Your task to perform on an android device: Clear the cart on ebay.com. Search for logitech g502 on ebay.com, select the first entry, and add it to the cart. Image 0: 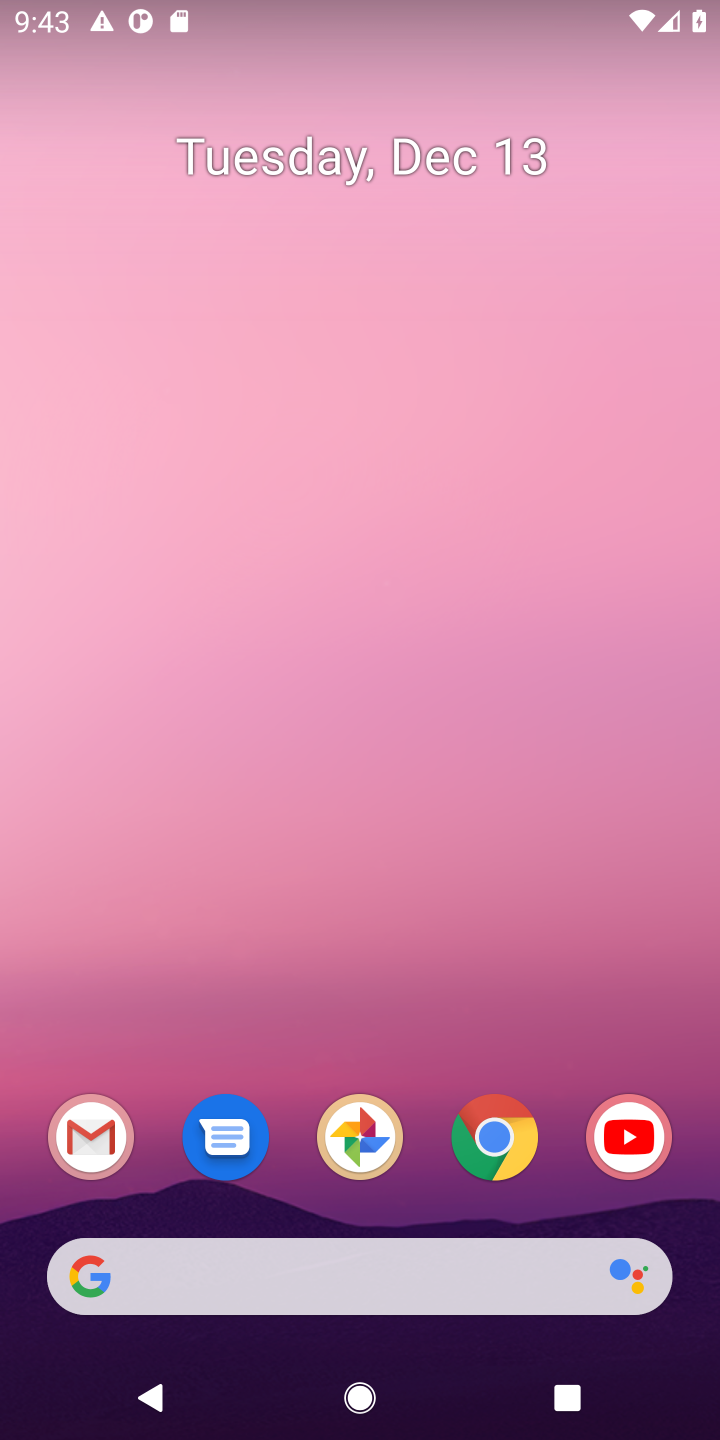
Step 0: click (495, 1142)
Your task to perform on an android device: Clear the cart on ebay.com. Search for logitech g502 on ebay.com, select the first entry, and add it to the cart. Image 1: 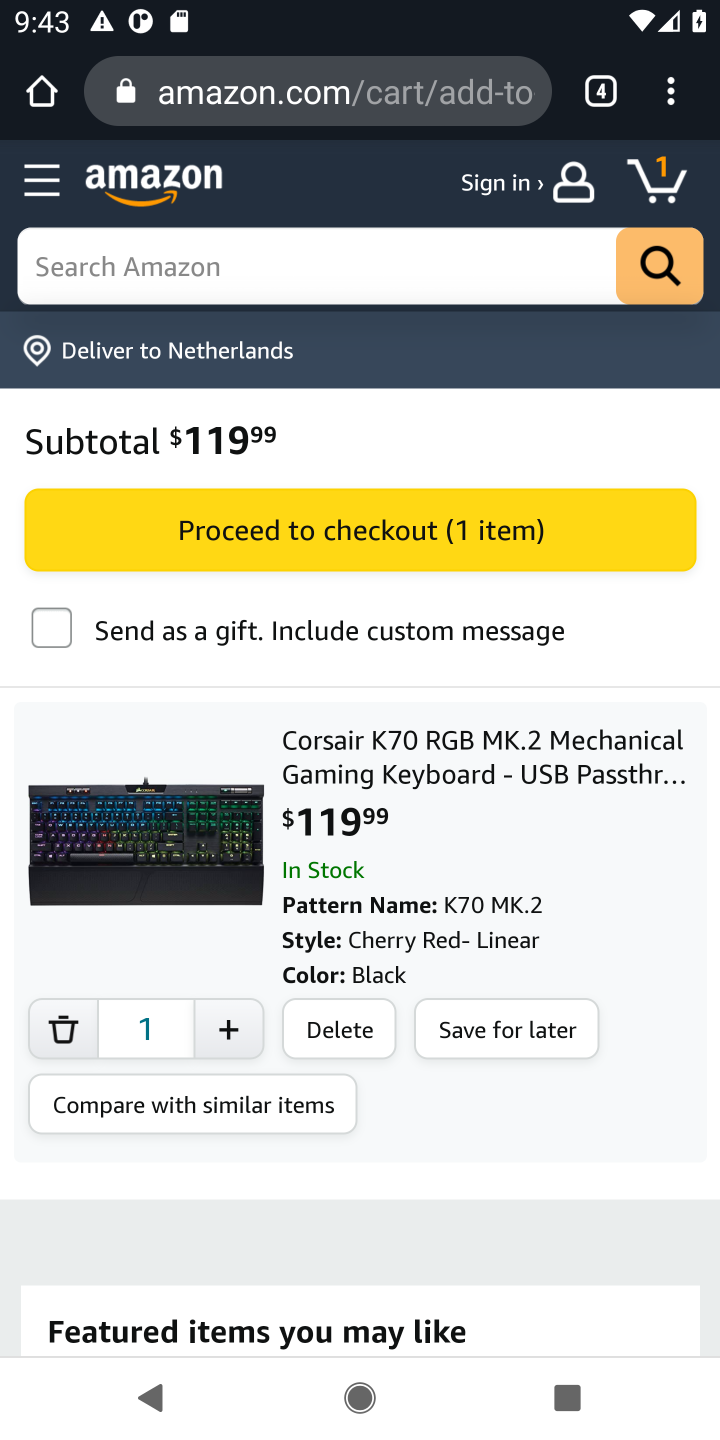
Step 1: click (602, 93)
Your task to perform on an android device: Clear the cart on ebay.com. Search for logitech g502 on ebay.com, select the first entry, and add it to the cart. Image 2: 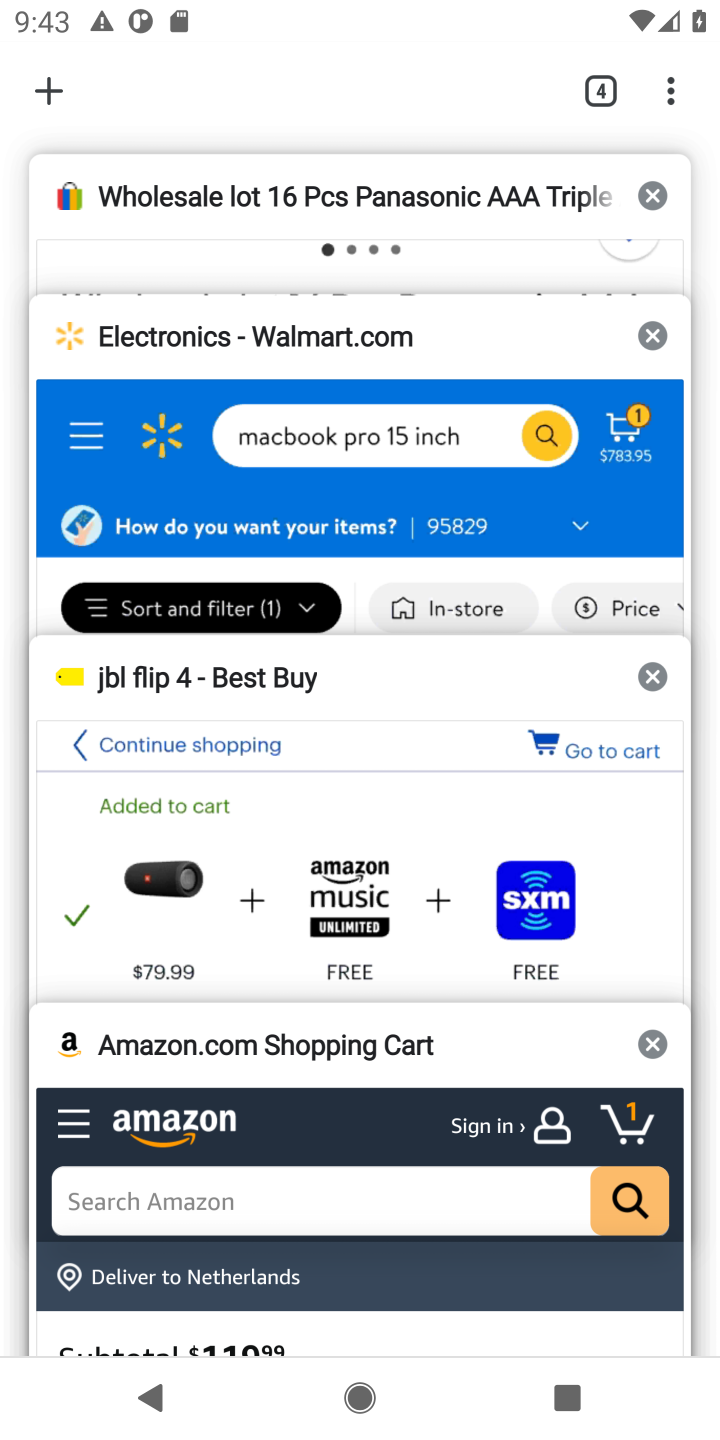
Step 2: click (266, 242)
Your task to perform on an android device: Clear the cart on ebay.com. Search for logitech g502 on ebay.com, select the first entry, and add it to the cart. Image 3: 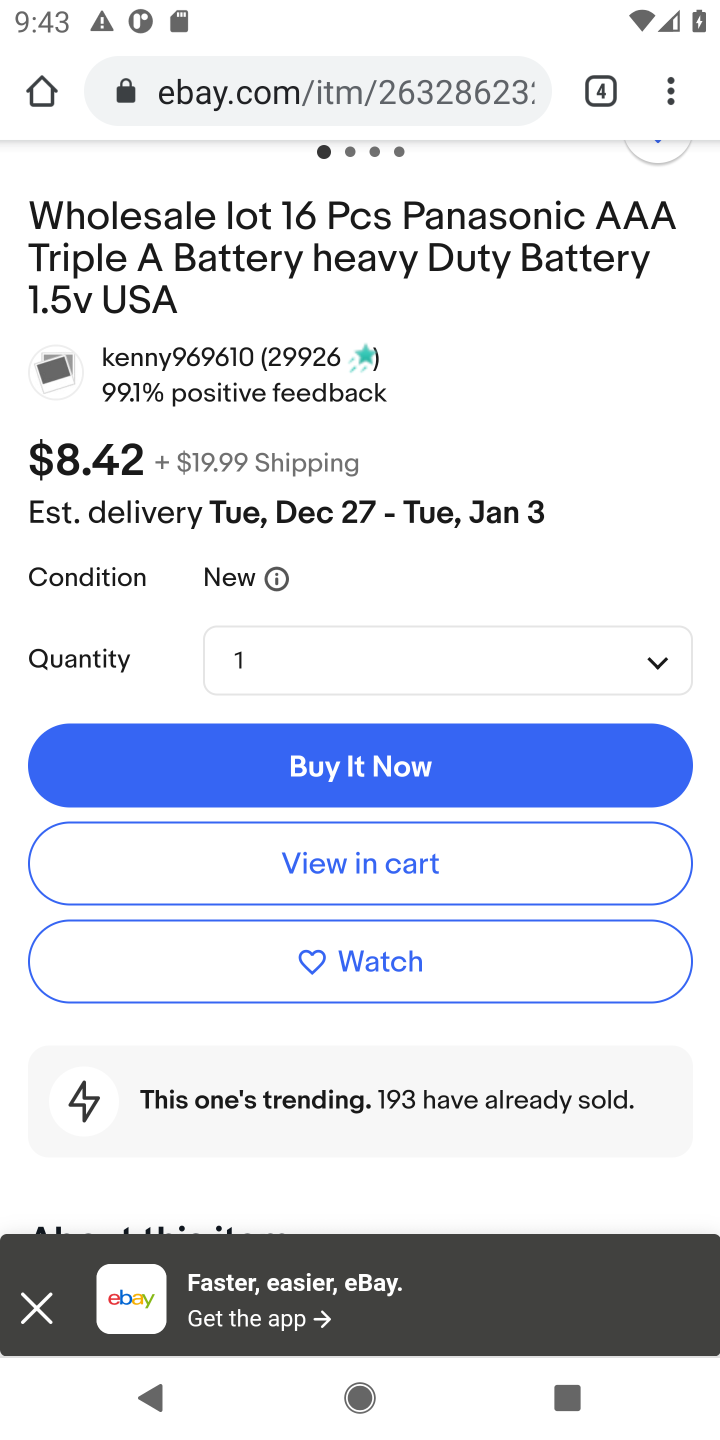
Step 3: drag from (620, 361) to (441, 1252)
Your task to perform on an android device: Clear the cart on ebay.com. Search for logitech g502 on ebay.com, select the first entry, and add it to the cart. Image 4: 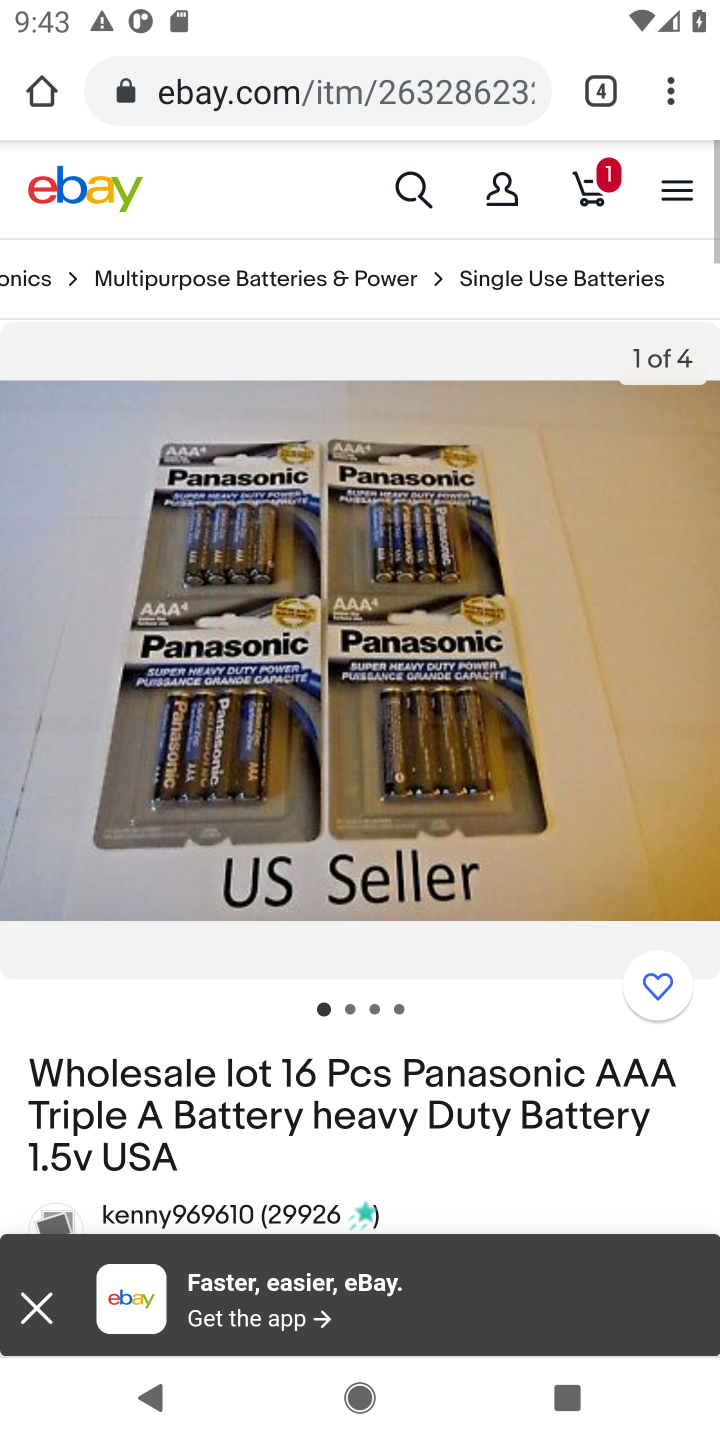
Step 4: drag from (596, 245) to (431, 943)
Your task to perform on an android device: Clear the cart on ebay.com. Search for logitech g502 on ebay.com, select the first entry, and add it to the cart. Image 5: 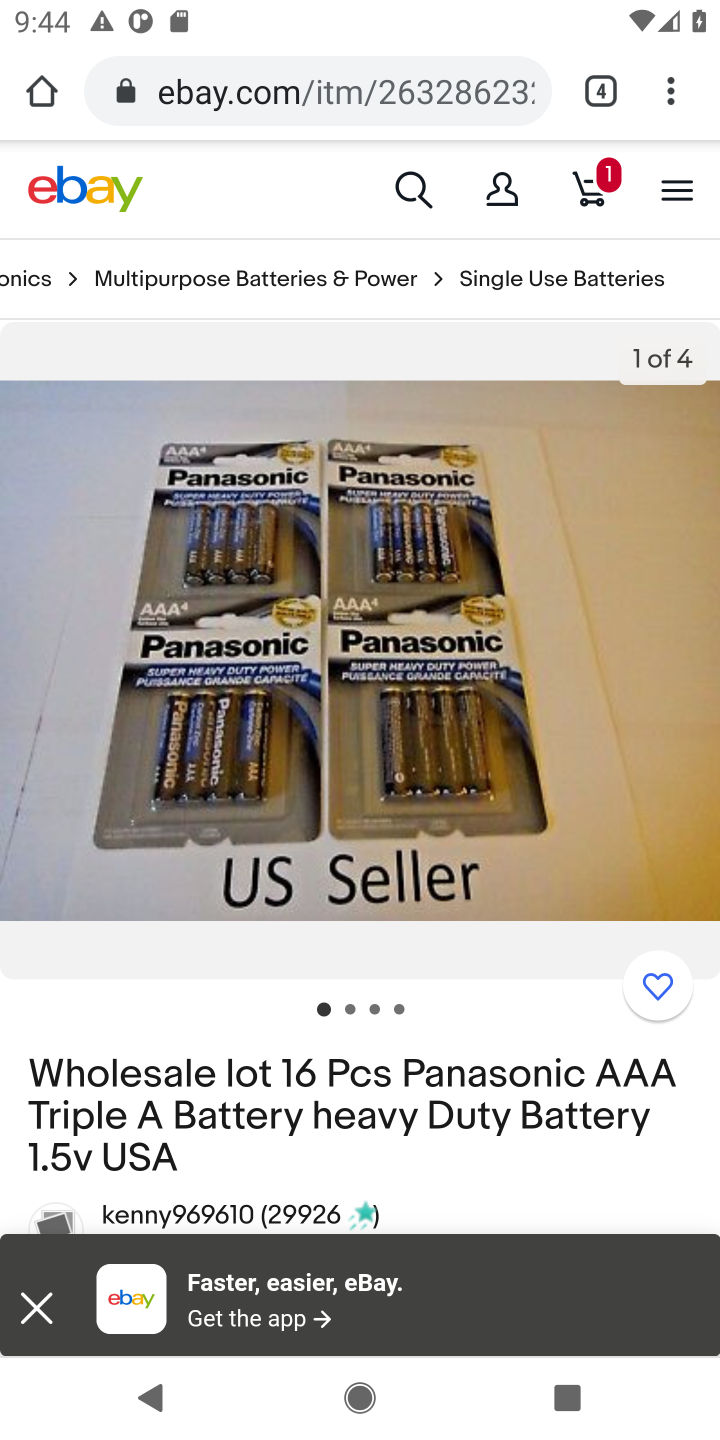
Step 5: click (593, 195)
Your task to perform on an android device: Clear the cart on ebay.com. Search for logitech g502 on ebay.com, select the first entry, and add it to the cart. Image 6: 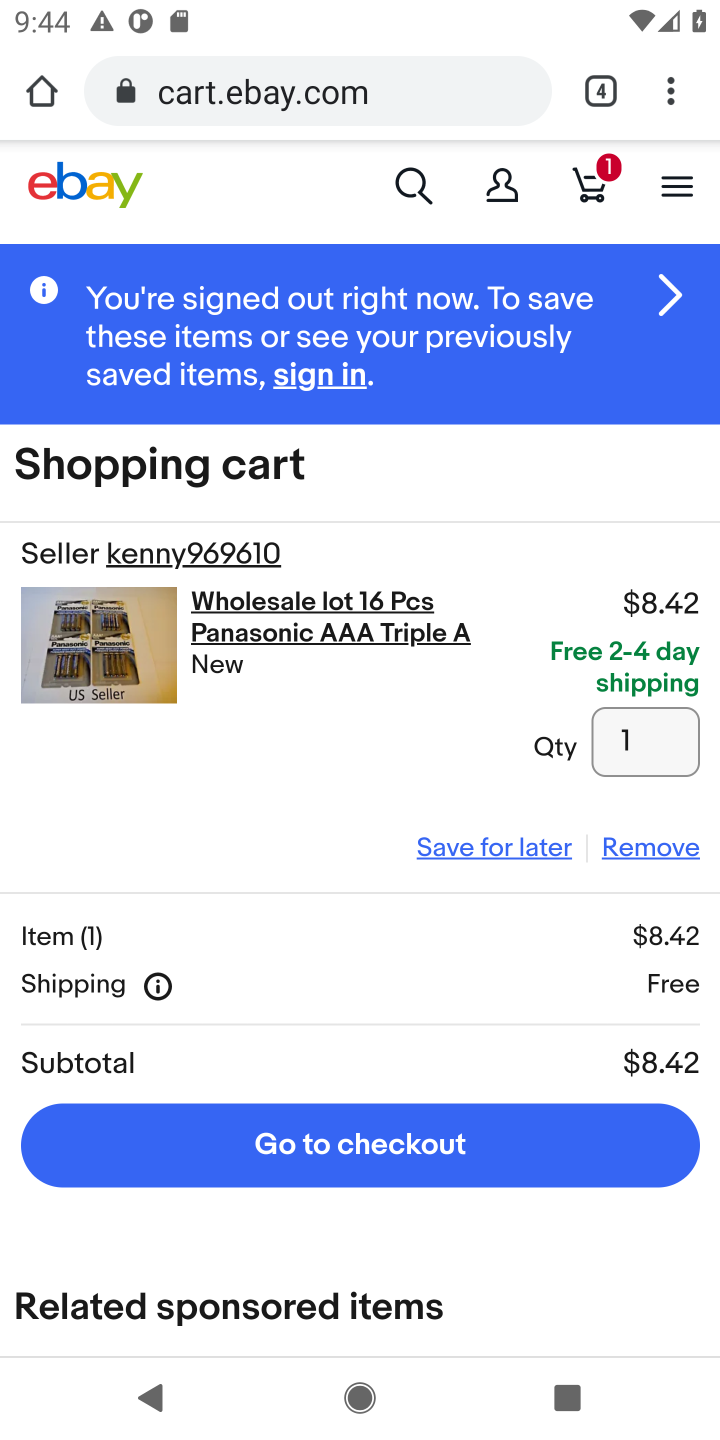
Step 6: click (645, 849)
Your task to perform on an android device: Clear the cart on ebay.com. Search for logitech g502 on ebay.com, select the first entry, and add it to the cart. Image 7: 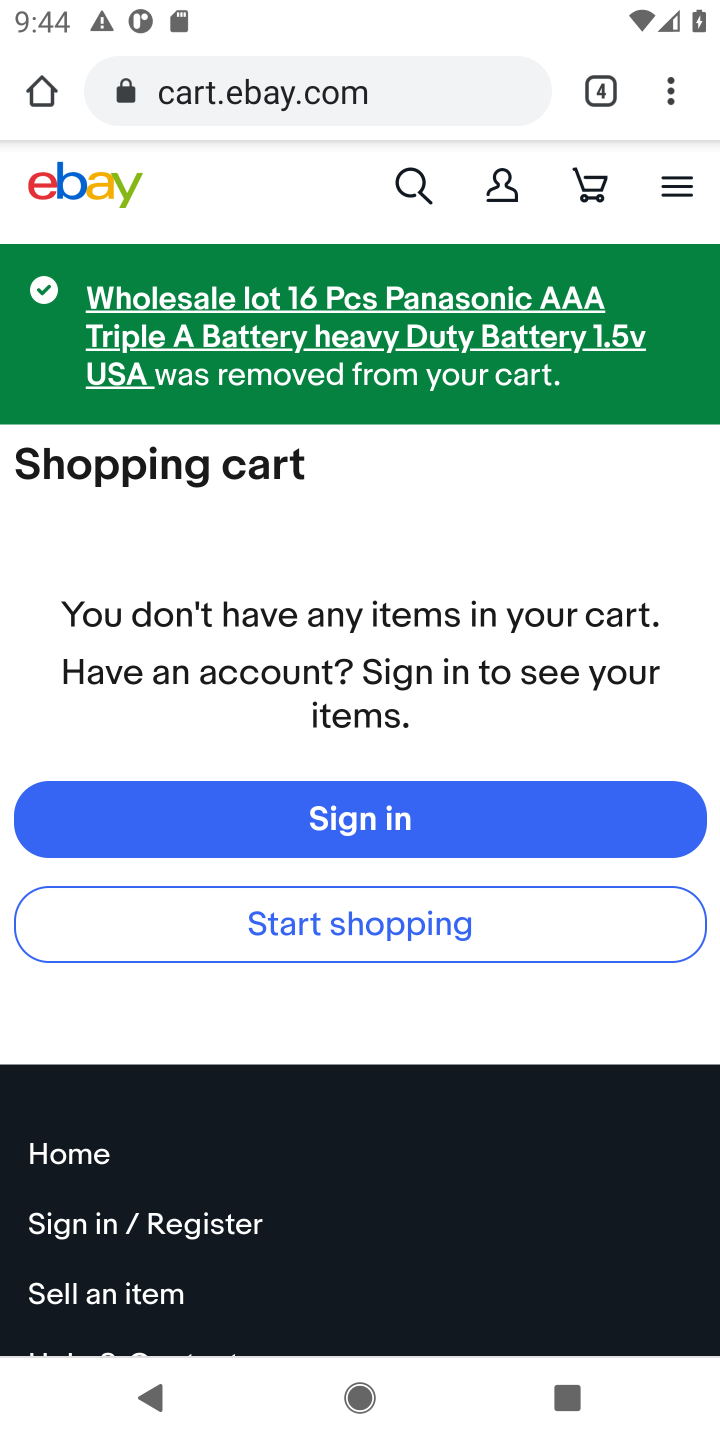
Step 7: click (413, 186)
Your task to perform on an android device: Clear the cart on ebay.com. Search for logitech g502 on ebay.com, select the first entry, and add it to the cart. Image 8: 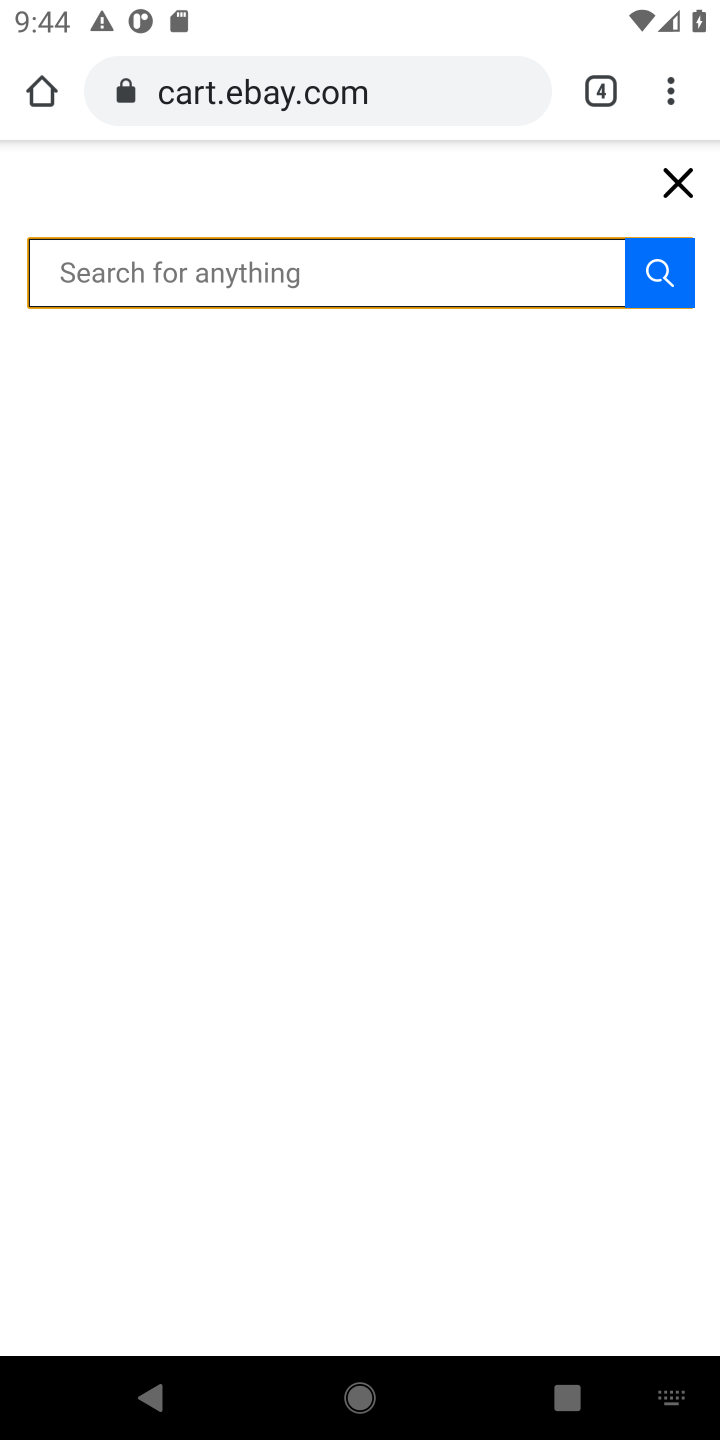
Step 8: type "logitech g502"
Your task to perform on an android device: Clear the cart on ebay.com. Search for logitech g502 on ebay.com, select the first entry, and add it to the cart. Image 9: 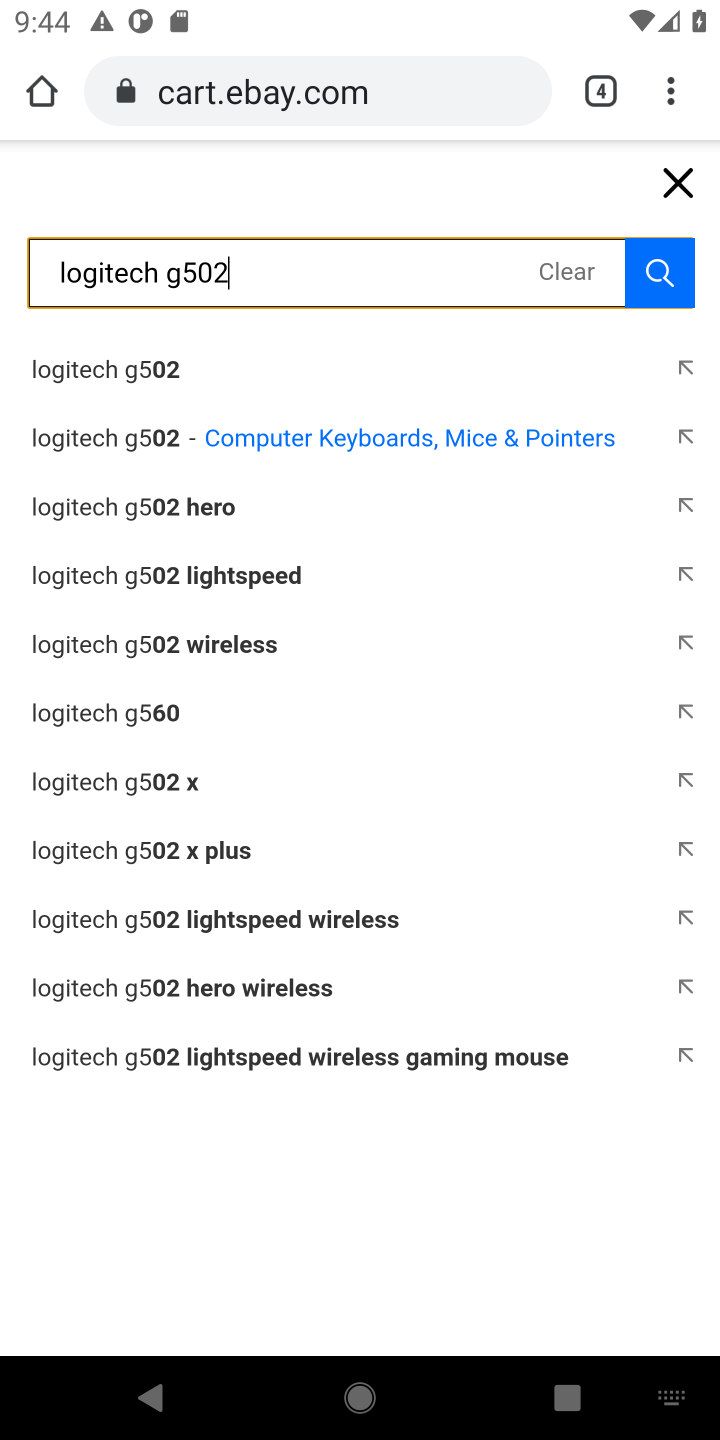
Step 9: click (112, 436)
Your task to perform on an android device: Clear the cart on ebay.com. Search for logitech g502 on ebay.com, select the first entry, and add it to the cart. Image 10: 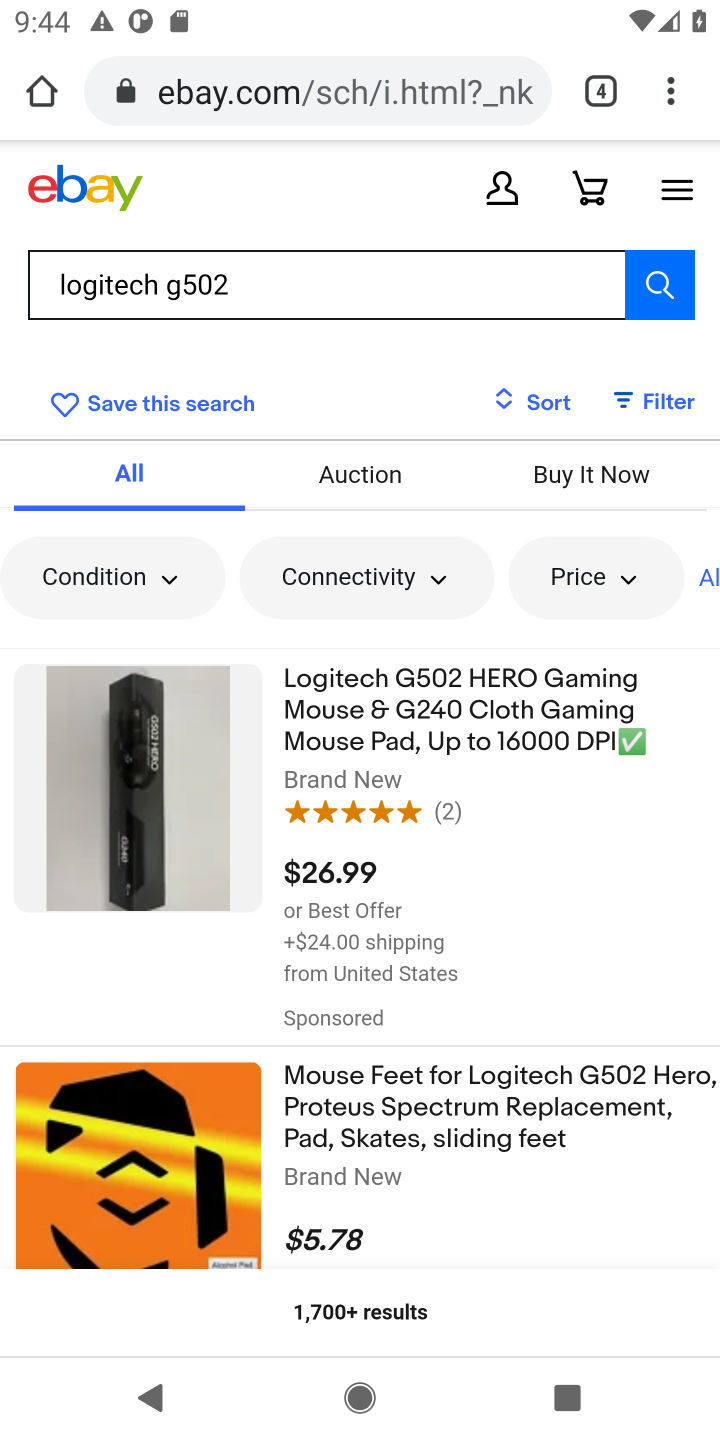
Step 10: click (489, 738)
Your task to perform on an android device: Clear the cart on ebay.com. Search for logitech g502 on ebay.com, select the first entry, and add it to the cart. Image 11: 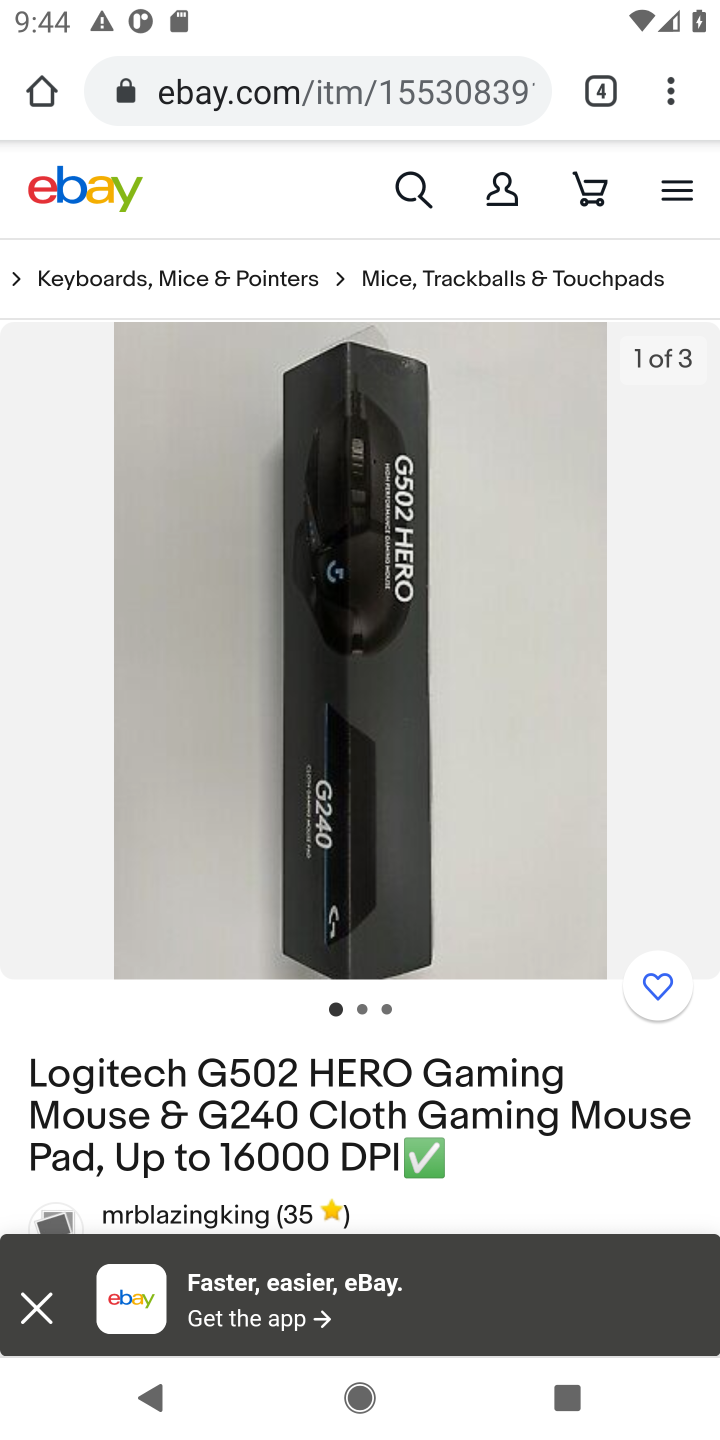
Step 11: drag from (392, 1242) to (515, 384)
Your task to perform on an android device: Clear the cart on ebay.com. Search for logitech g502 on ebay.com, select the first entry, and add it to the cart. Image 12: 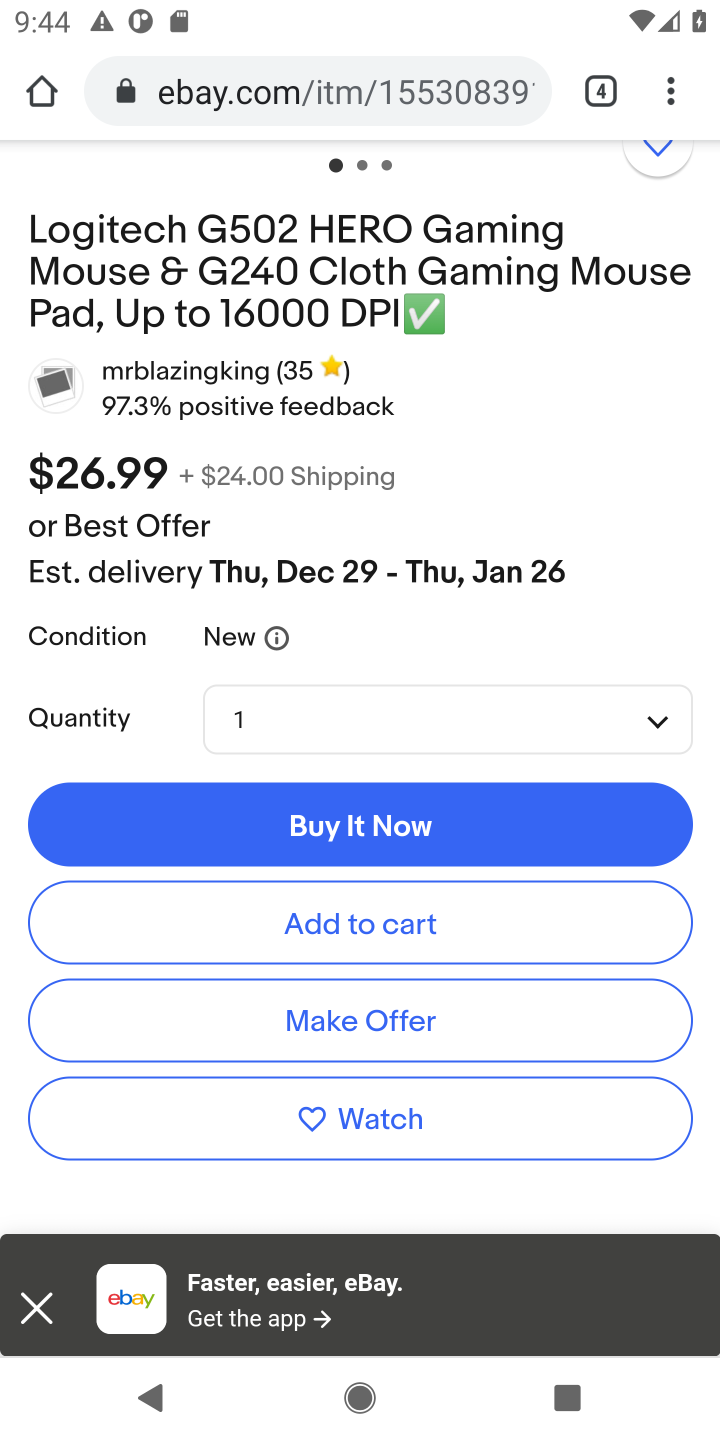
Step 12: click (442, 939)
Your task to perform on an android device: Clear the cart on ebay.com. Search for logitech g502 on ebay.com, select the first entry, and add it to the cart. Image 13: 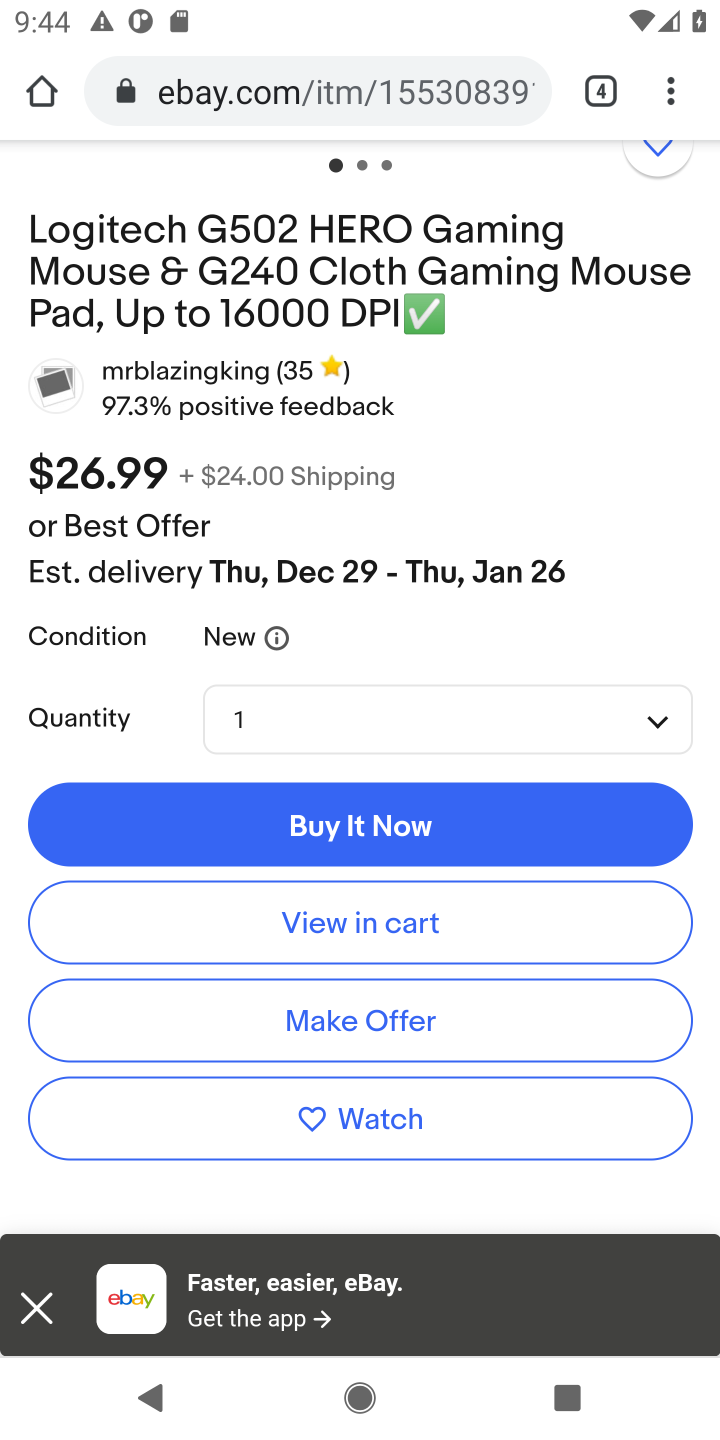
Step 13: task complete